Your task to perform on an android device: Go to Google Image 0: 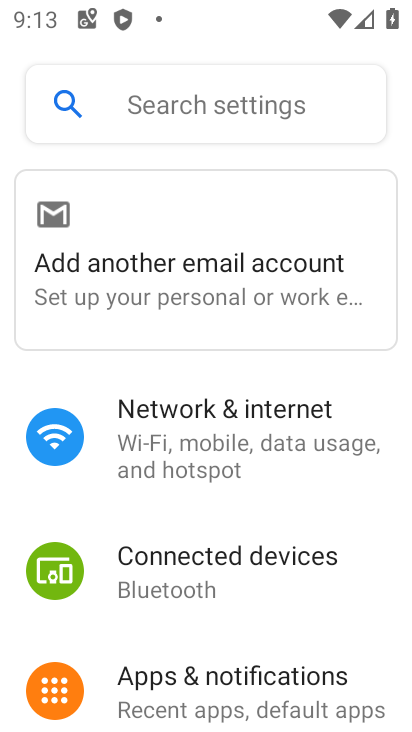
Step 0: press home button
Your task to perform on an android device: Go to Google Image 1: 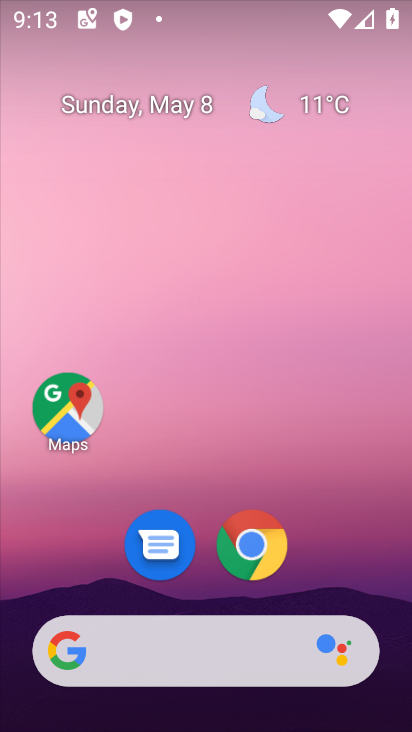
Step 1: click (243, 638)
Your task to perform on an android device: Go to Google Image 2: 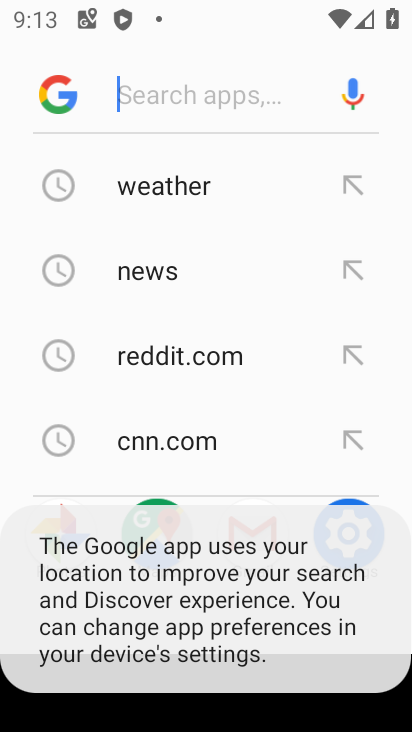
Step 2: drag from (265, 456) to (235, 72)
Your task to perform on an android device: Go to Google Image 3: 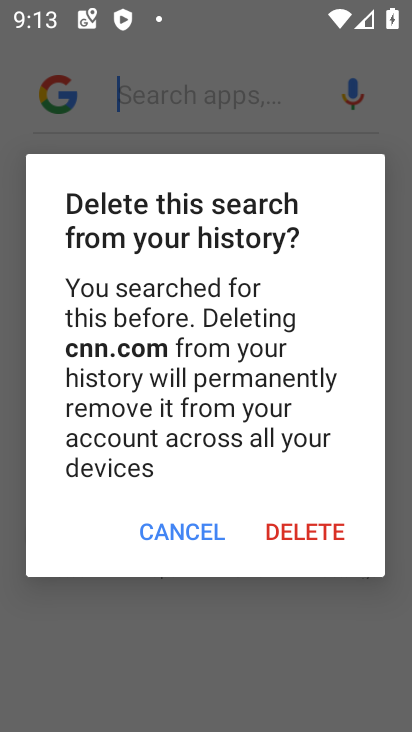
Step 3: click (174, 530)
Your task to perform on an android device: Go to Google Image 4: 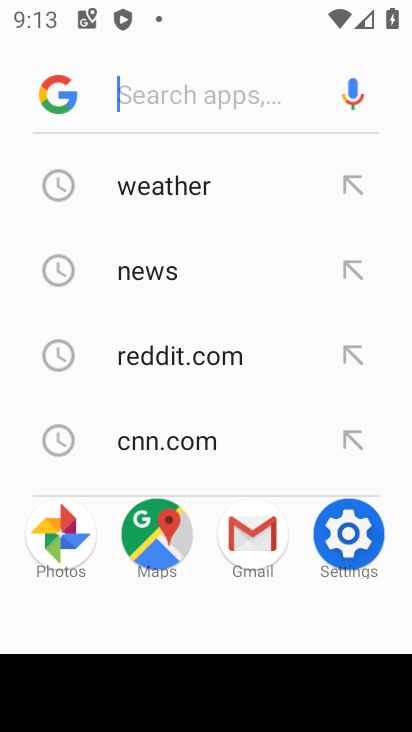
Step 4: task complete